Your task to perform on an android device: Search for "duracell triple a" on bestbuy.com, select the first entry, add it to the cart, then select checkout. Image 0: 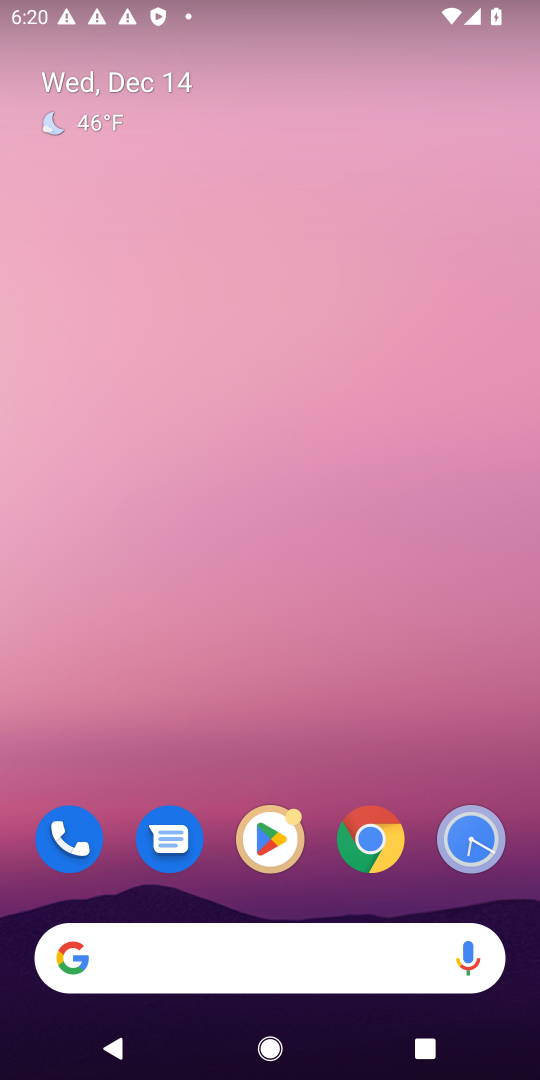
Step 0: click (369, 826)
Your task to perform on an android device: Search for "duracell triple a" on bestbuy.com, select the first entry, add it to the cart, then select checkout. Image 1: 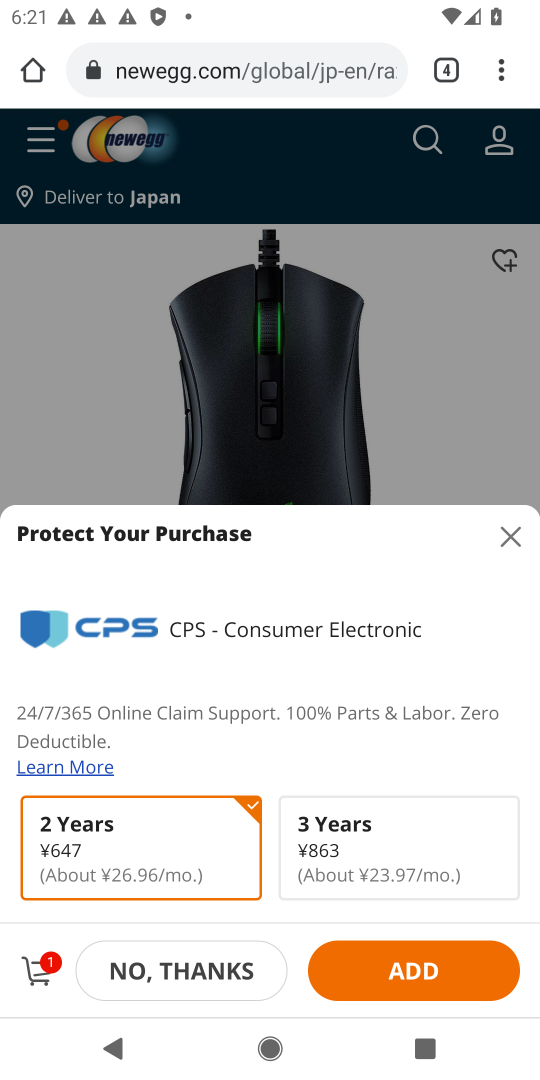
Step 1: task complete